Your task to perform on an android device: Open Amazon Image 0: 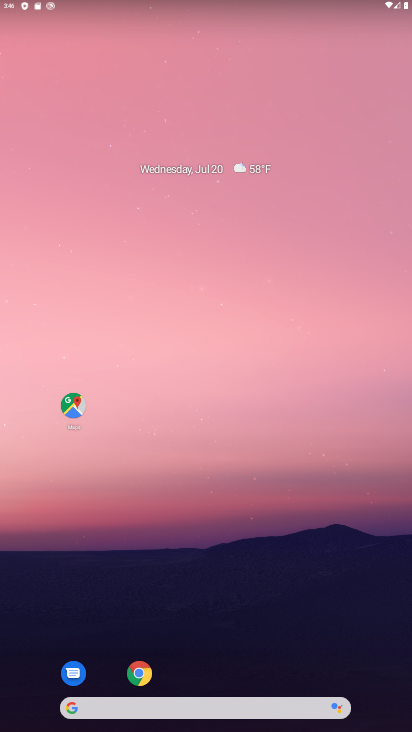
Step 0: click (138, 678)
Your task to perform on an android device: Open Amazon Image 1: 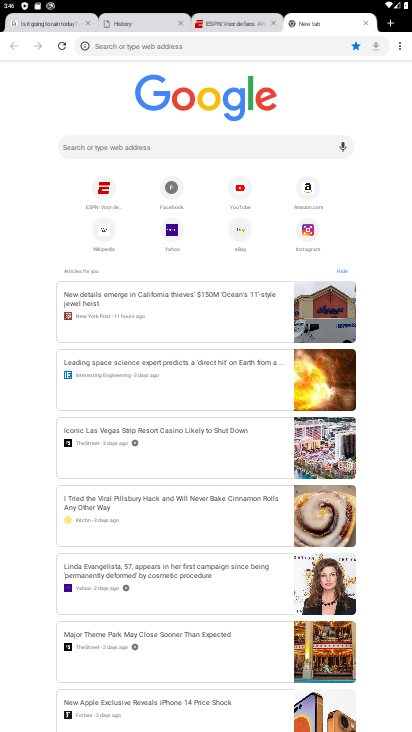
Step 1: click (316, 191)
Your task to perform on an android device: Open Amazon Image 2: 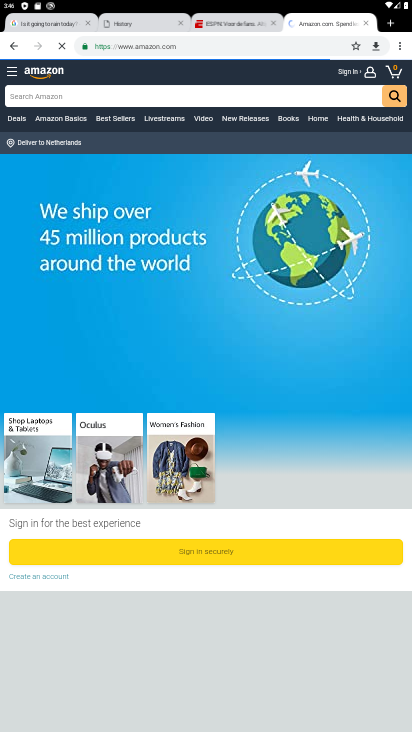
Step 2: task complete